Your task to perform on an android device: Search for Mexican restaurants on Maps Image 0: 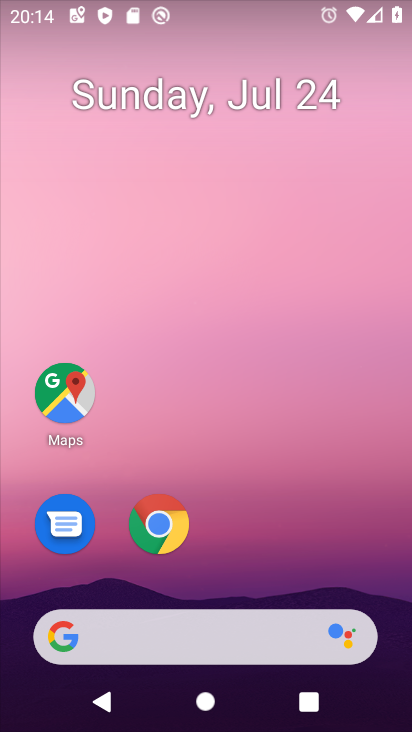
Step 0: click (67, 393)
Your task to perform on an android device: Search for Mexican restaurants on Maps Image 1: 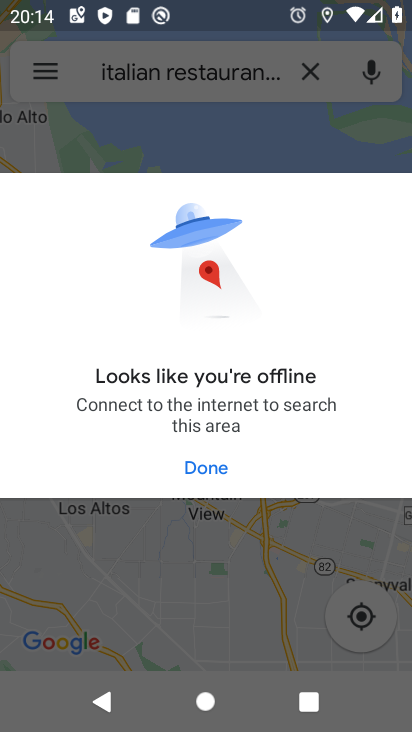
Step 1: click (311, 69)
Your task to perform on an android device: Search for Mexican restaurants on Maps Image 2: 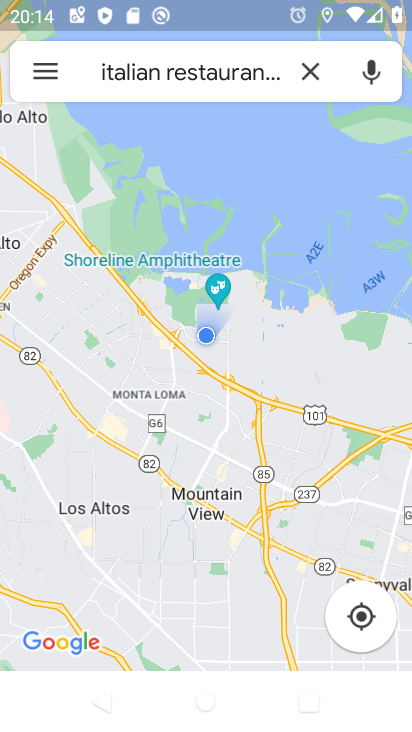
Step 2: click (311, 69)
Your task to perform on an android device: Search for Mexican restaurants on Maps Image 3: 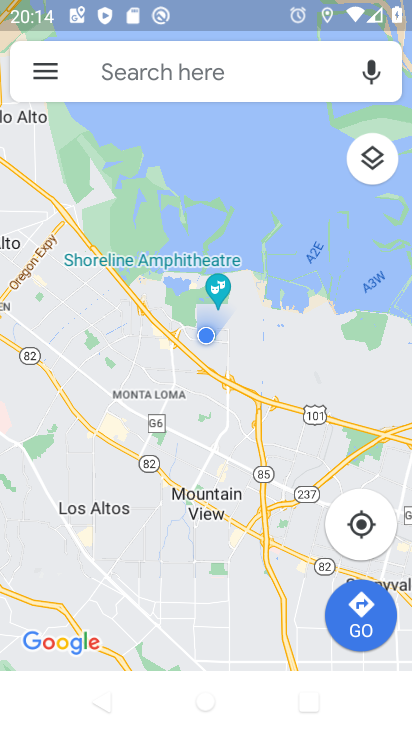
Step 3: click (257, 74)
Your task to perform on an android device: Search for Mexican restaurants on Maps Image 4: 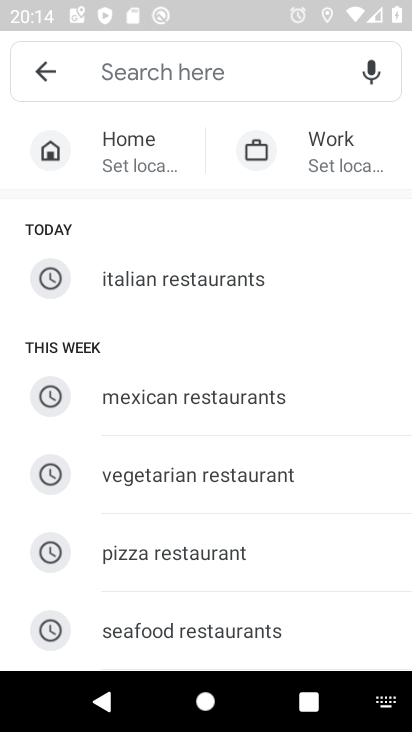
Step 4: click (235, 393)
Your task to perform on an android device: Search for Mexican restaurants on Maps Image 5: 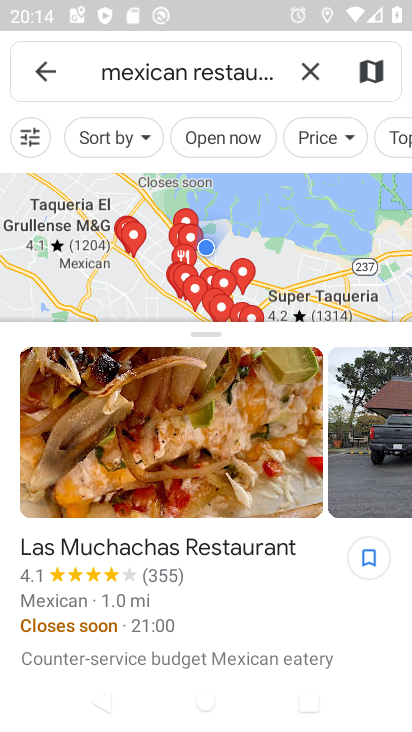
Step 5: task complete